Your task to perform on an android device: delete location history Image 0: 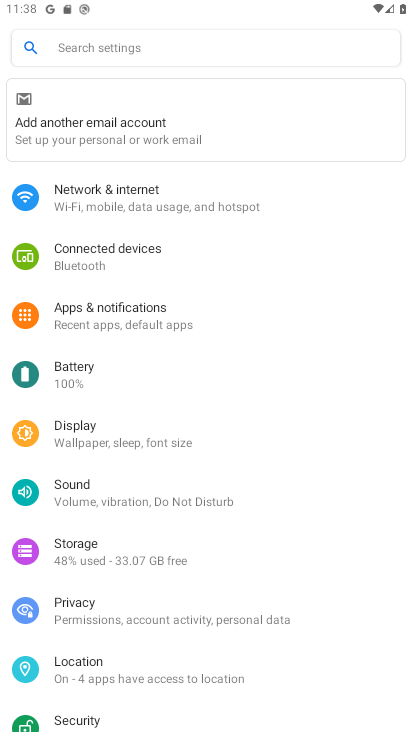
Step 0: press home button
Your task to perform on an android device: delete location history Image 1: 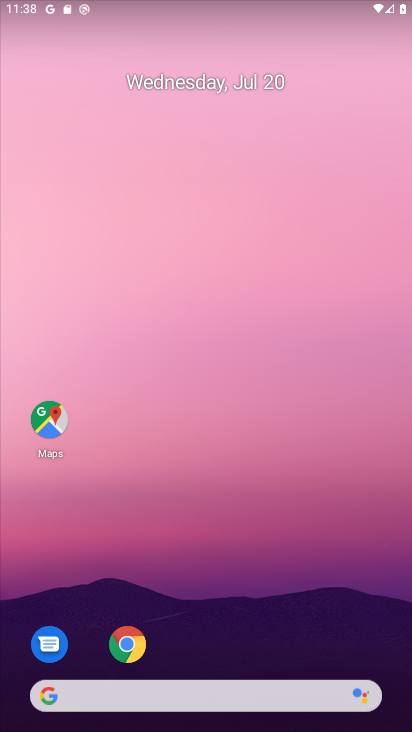
Step 1: click (44, 420)
Your task to perform on an android device: delete location history Image 2: 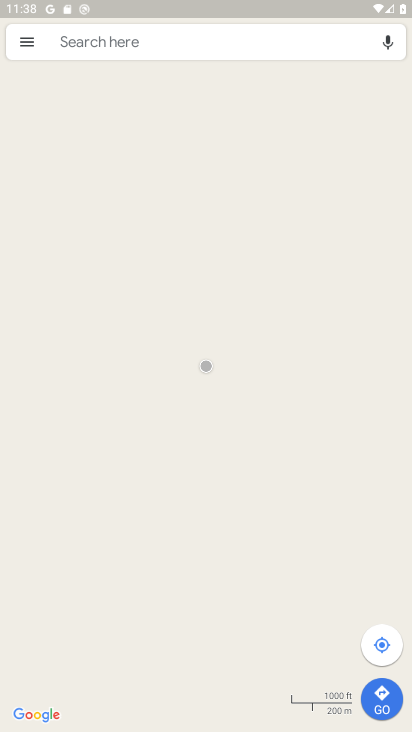
Step 2: click (15, 41)
Your task to perform on an android device: delete location history Image 3: 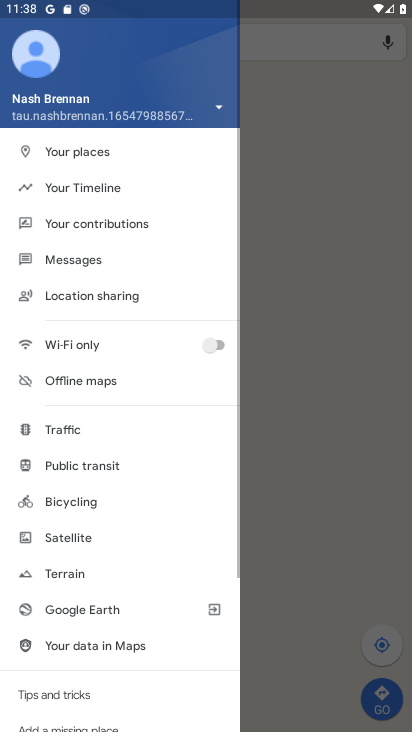
Step 3: click (109, 193)
Your task to perform on an android device: delete location history Image 4: 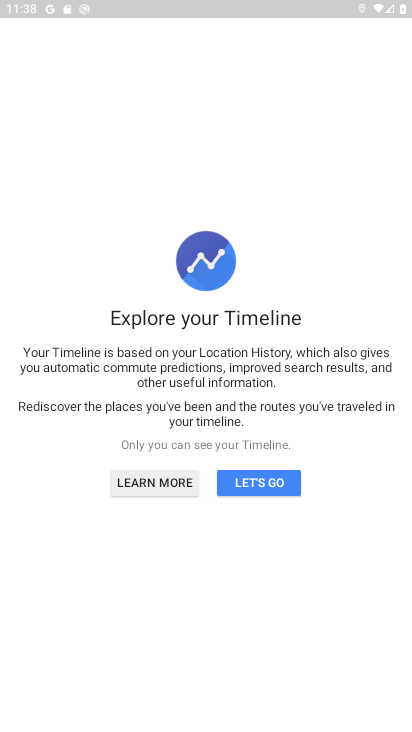
Step 4: click (276, 489)
Your task to perform on an android device: delete location history Image 5: 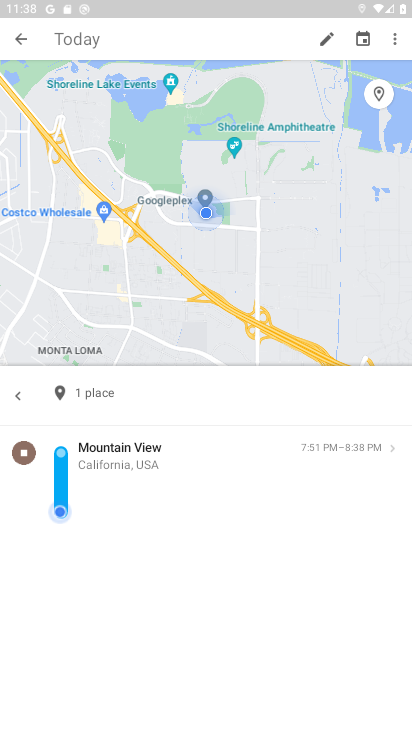
Step 5: click (397, 37)
Your task to perform on an android device: delete location history Image 6: 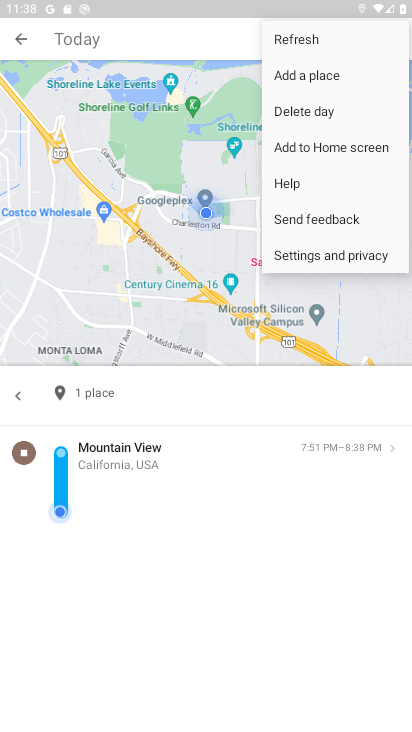
Step 6: click (327, 252)
Your task to perform on an android device: delete location history Image 7: 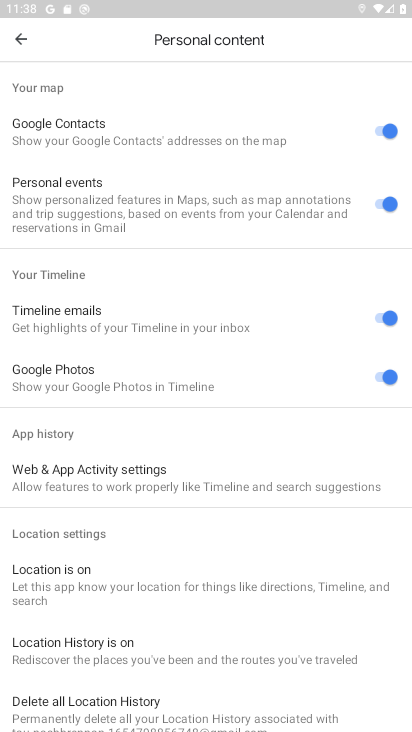
Step 7: click (148, 709)
Your task to perform on an android device: delete location history Image 8: 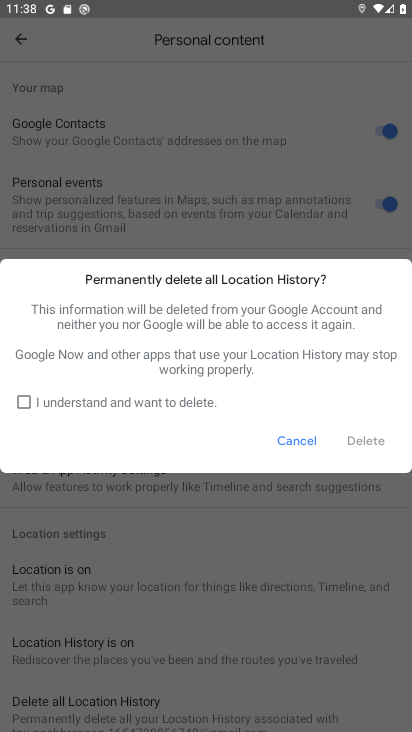
Step 8: click (131, 400)
Your task to perform on an android device: delete location history Image 9: 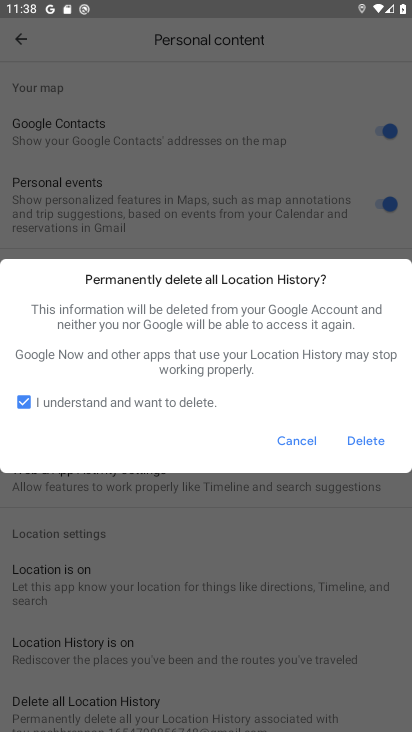
Step 9: click (372, 446)
Your task to perform on an android device: delete location history Image 10: 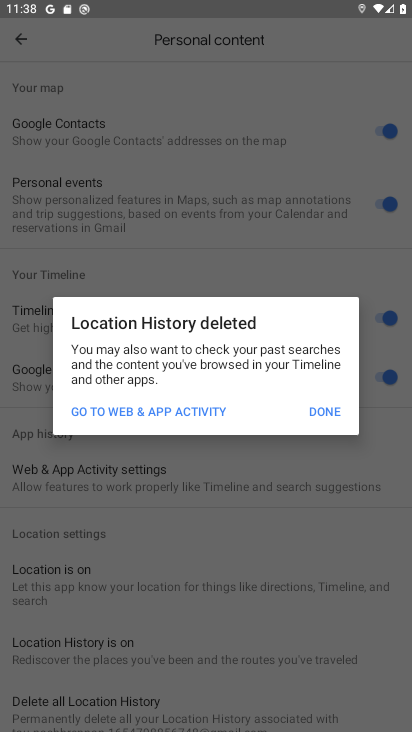
Step 10: task complete